Your task to perform on an android device: Go to Reddit.com Image 0: 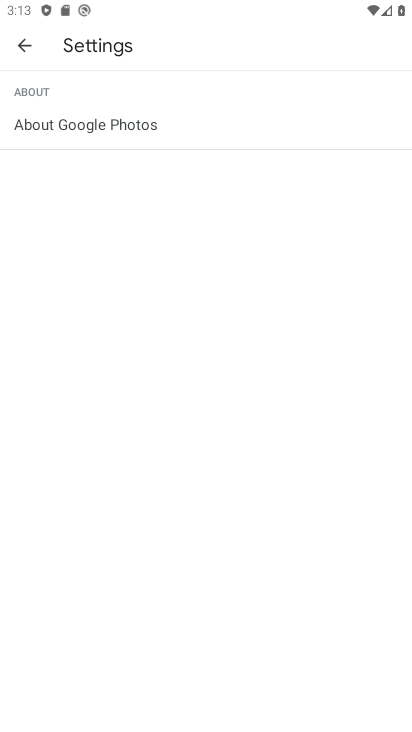
Step 0: press home button
Your task to perform on an android device: Go to Reddit.com Image 1: 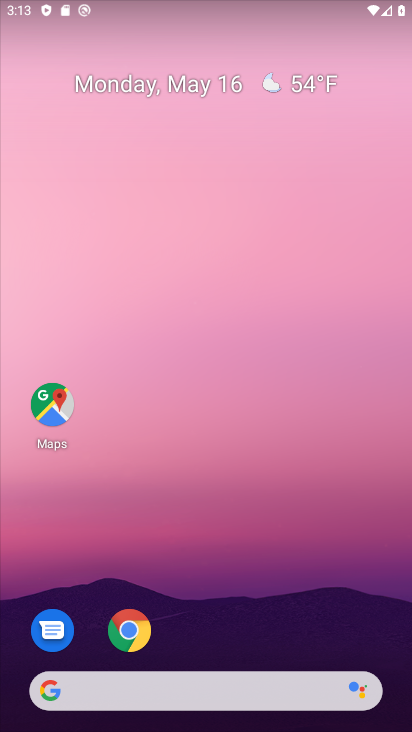
Step 1: click (123, 638)
Your task to perform on an android device: Go to Reddit.com Image 2: 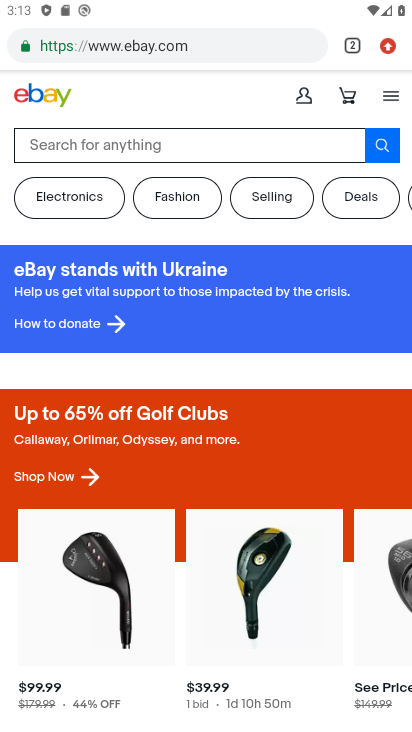
Step 2: click (233, 47)
Your task to perform on an android device: Go to Reddit.com Image 3: 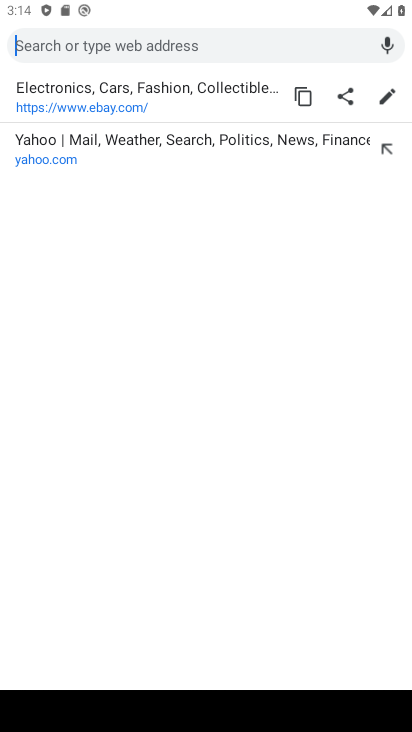
Step 3: click (253, 46)
Your task to perform on an android device: Go to Reddit.com Image 4: 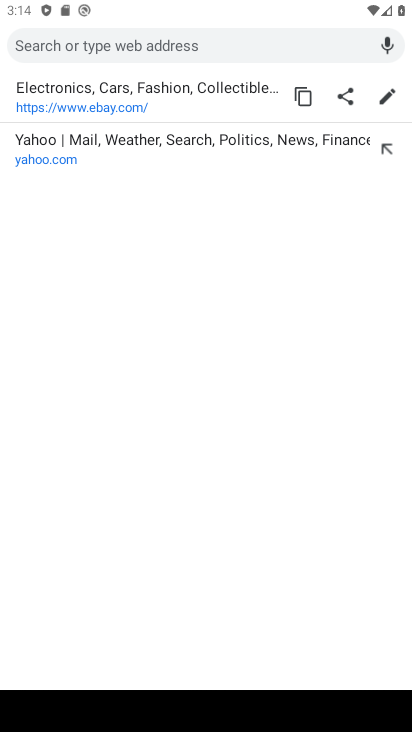
Step 4: type "Reddit.com"
Your task to perform on an android device: Go to Reddit.com Image 5: 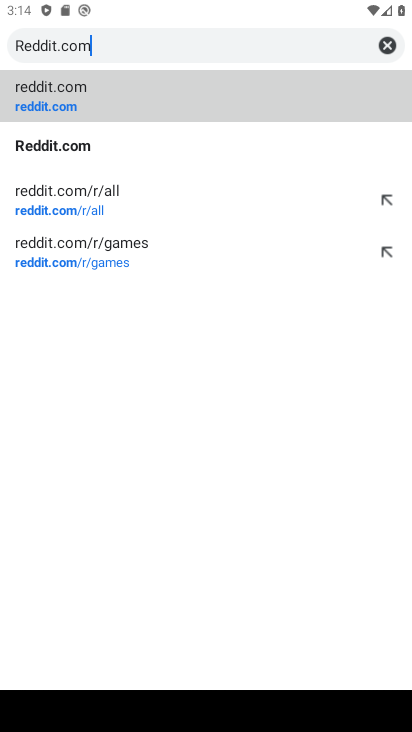
Step 5: click (54, 108)
Your task to perform on an android device: Go to Reddit.com Image 6: 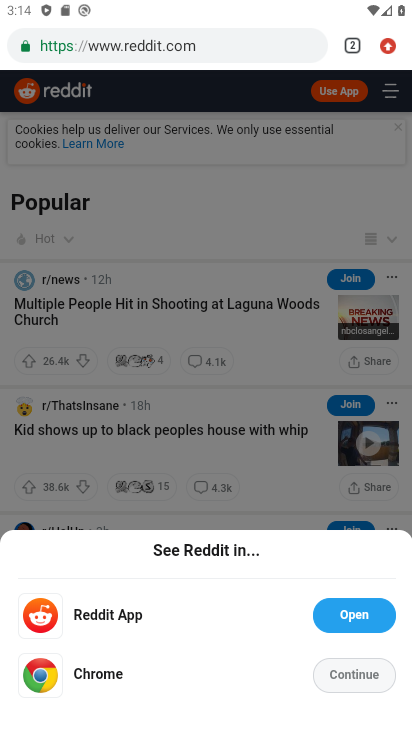
Step 6: click (364, 664)
Your task to perform on an android device: Go to Reddit.com Image 7: 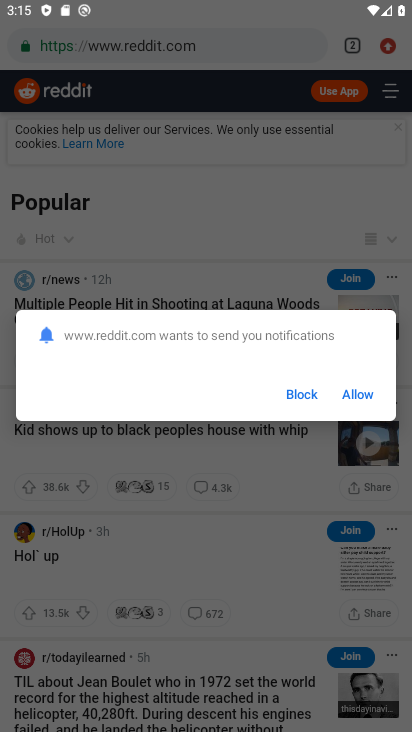
Step 7: click (313, 389)
Your task to perform on an android device: Go to Reddit.com Image 8: 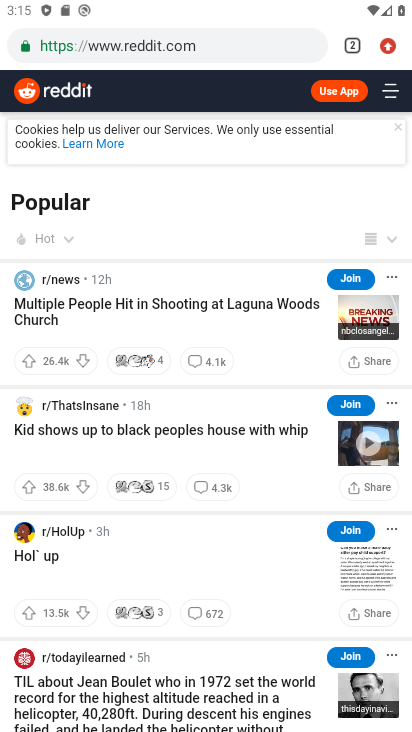
Step 8: task complete